Your task to perform on an android device: Go to Android settings Image 0: 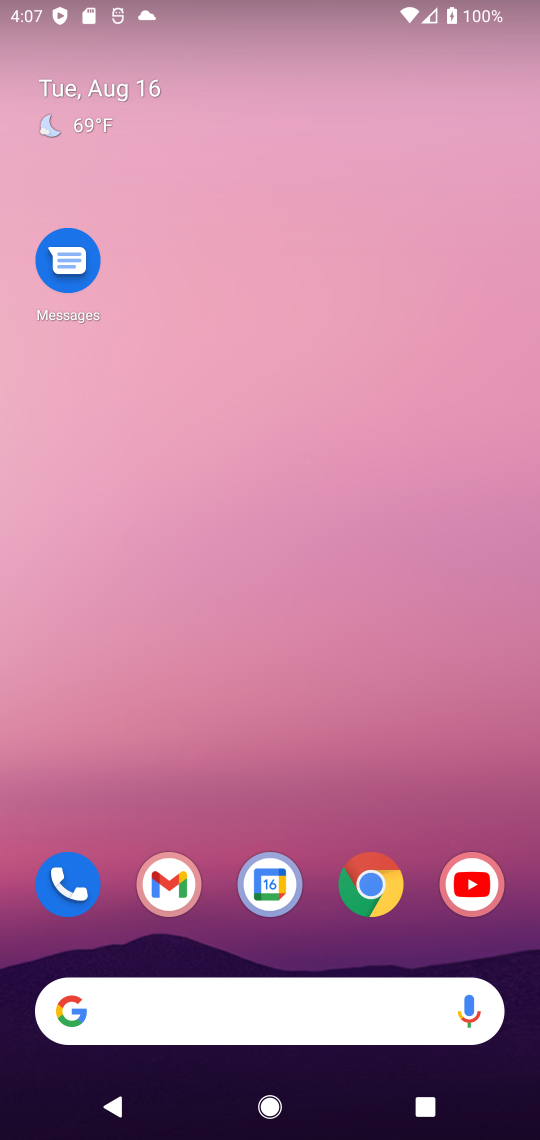
Step 0: drag from (54, 952) to (263, 194)
Your task to perform on an android device: Go to Android settings Image 1: 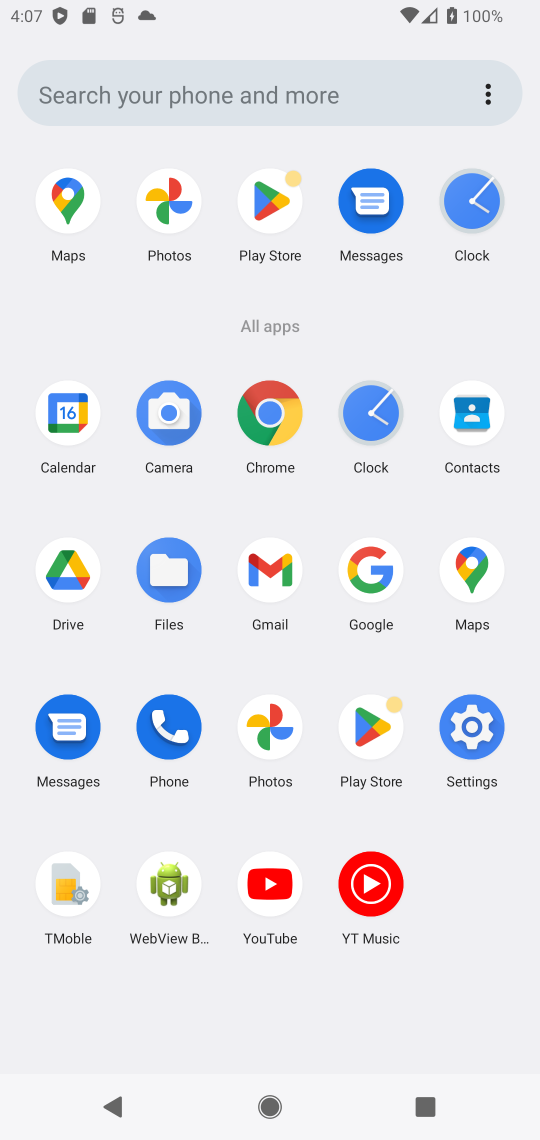
Step 1: click (467, 711)
Your task to perform on an android device: Go to Android settings Image 2: 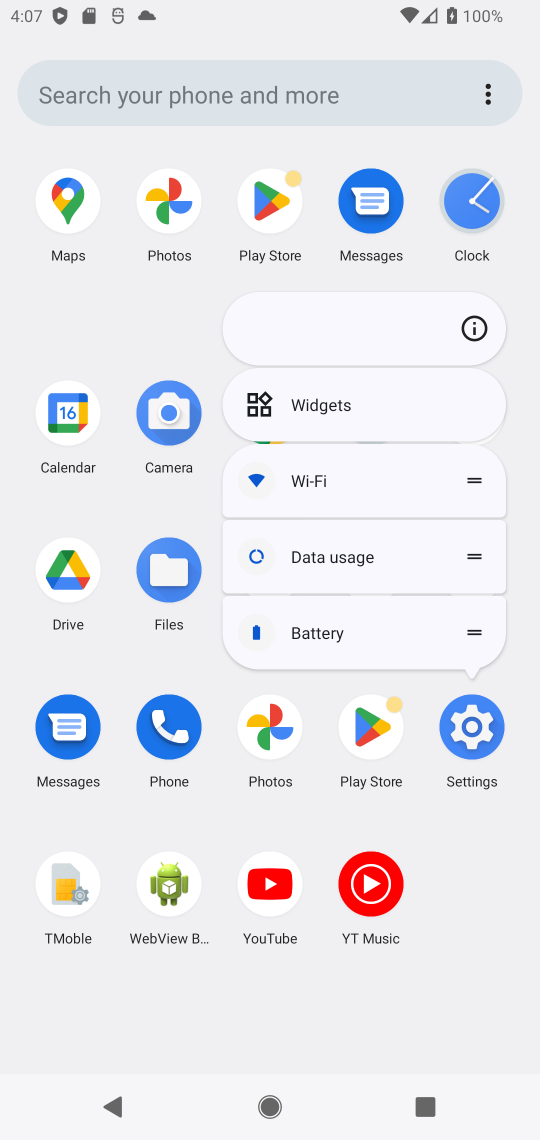
Step 2: click (454, 765)
Your task to perform on an android device: Go to Android settings Image 3: 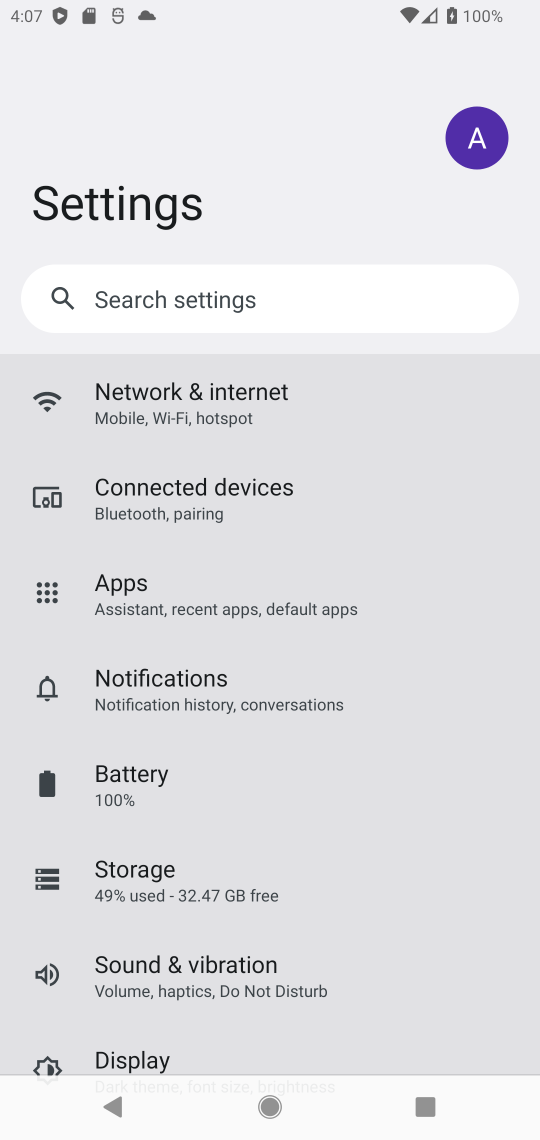
Step 3: drag from (416, 1040) to (420, 220)
Your task to perform on an android device: Go to Android settings Image 4: 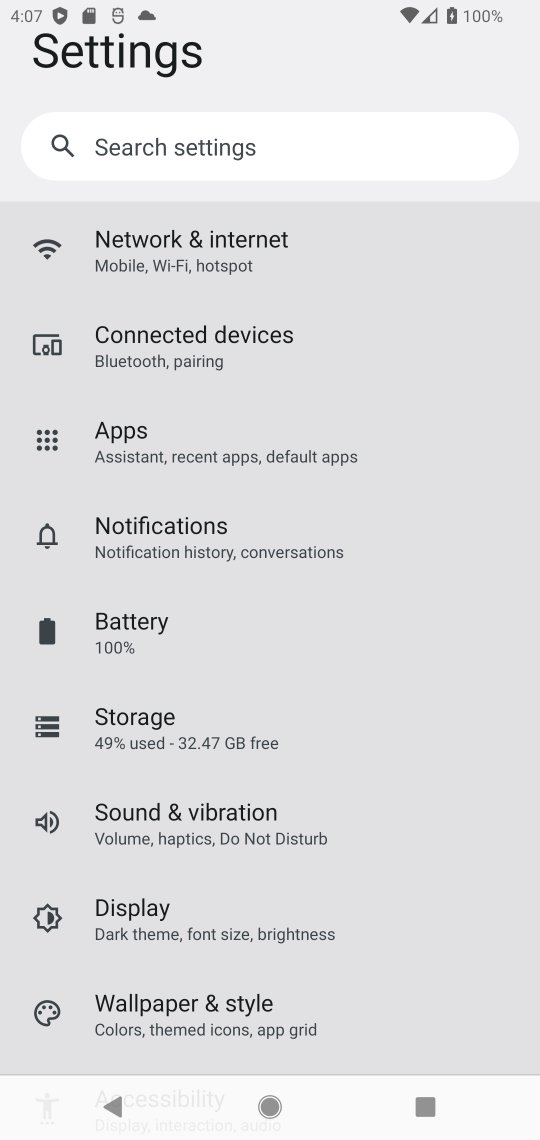
Step 4: drag from (385, 1017) to (337, 379)
Your task to perform on an android device: Go to Android settings Image 5: 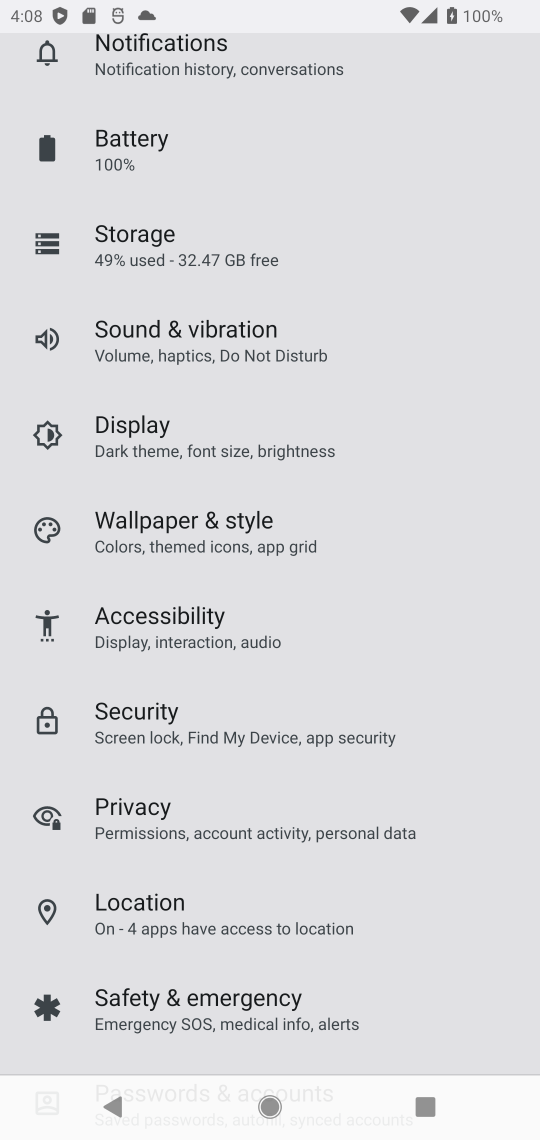
Step 5: drag from (414, 955) to (420, 288)
Your task to perform on an android device: Go to Android settings Image 6: 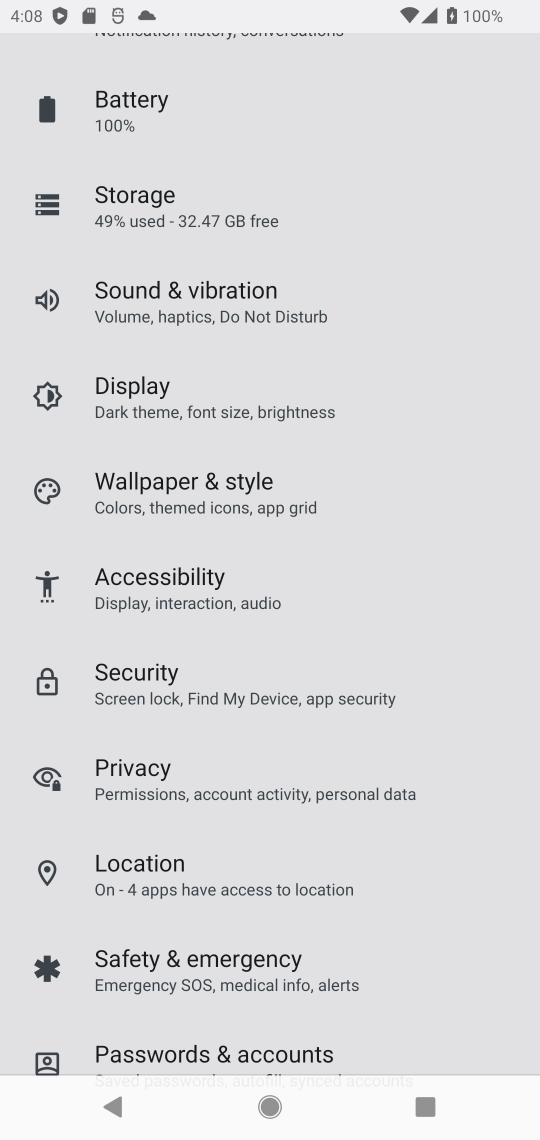
Step 6: drag from (419, 558) to (423, 133)
Your task to perform on an android device: Go to Android settings Image 7: 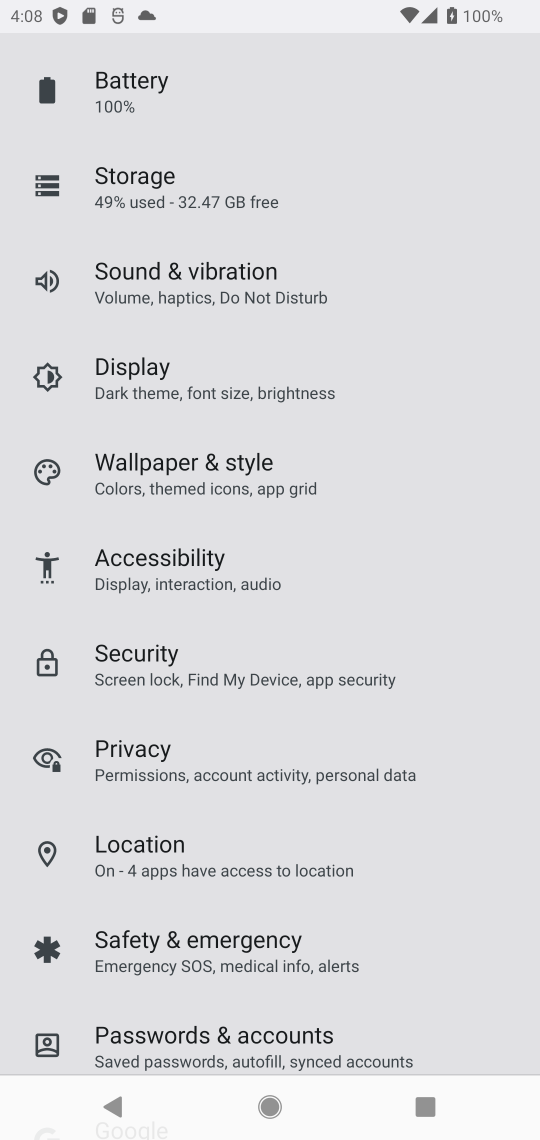
Step 7: drag from (462, 1008) to (458, 161)
Your task to perform on an android device: Go to Android settings Image 8: 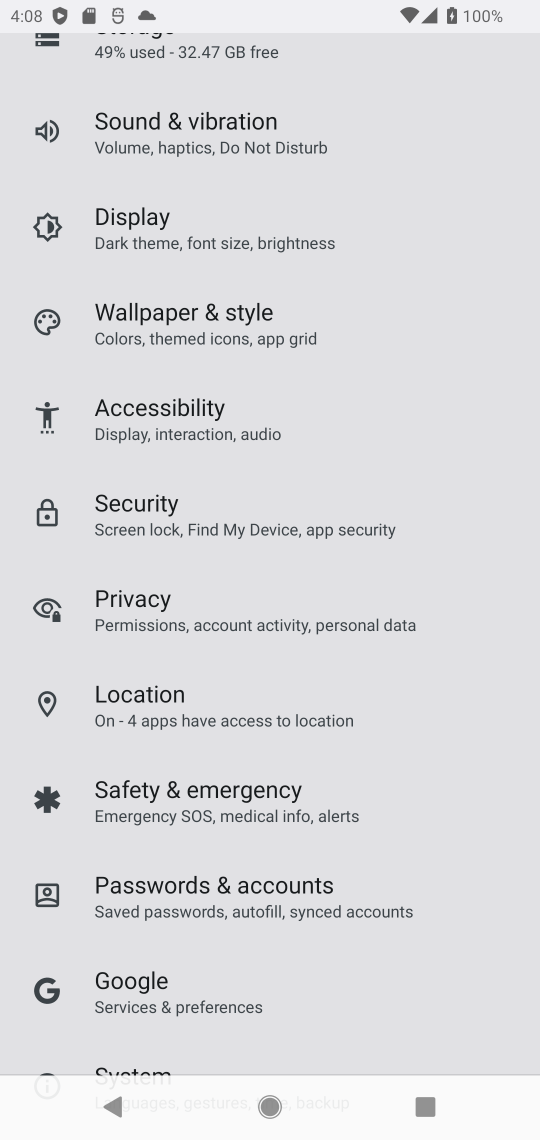
Step 8: drag from (342, 1030) to (382, 173)
Your task to perform on an android device: Go to Android settings Image 9: 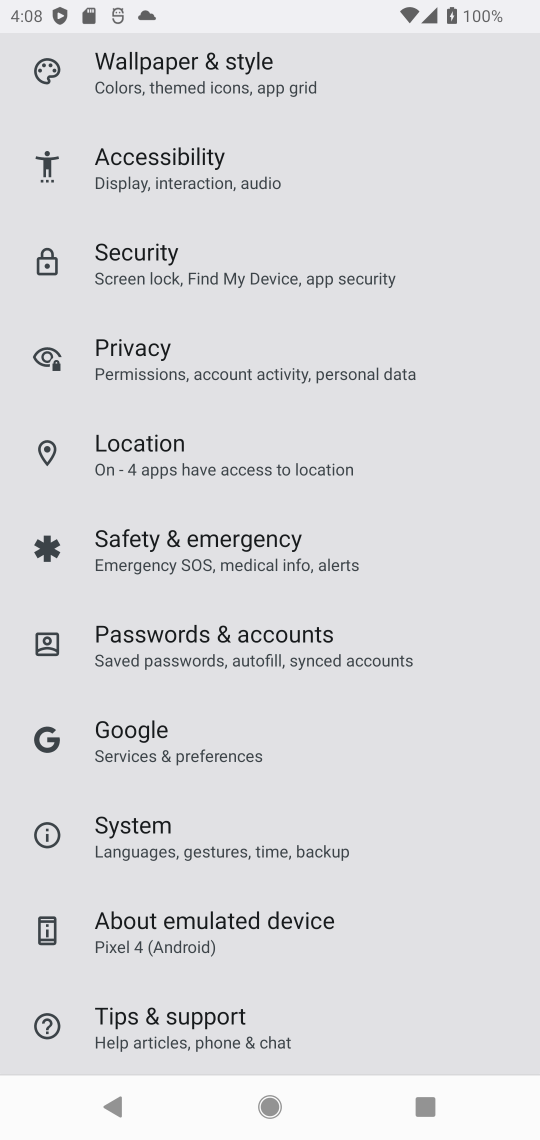
Step 9: drag from (347, 945) to (394, 456)
Your task to perform on an android device: Go to Android settings Image 10: 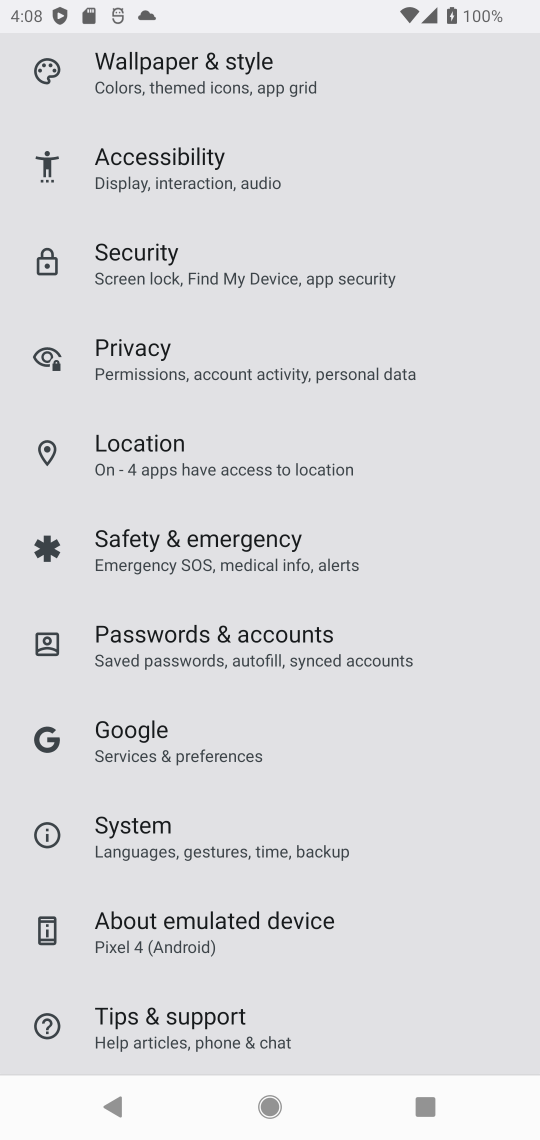
Step 10: click (265, 930)
Your task to perform on an android device: Go to Android settings Image 11: 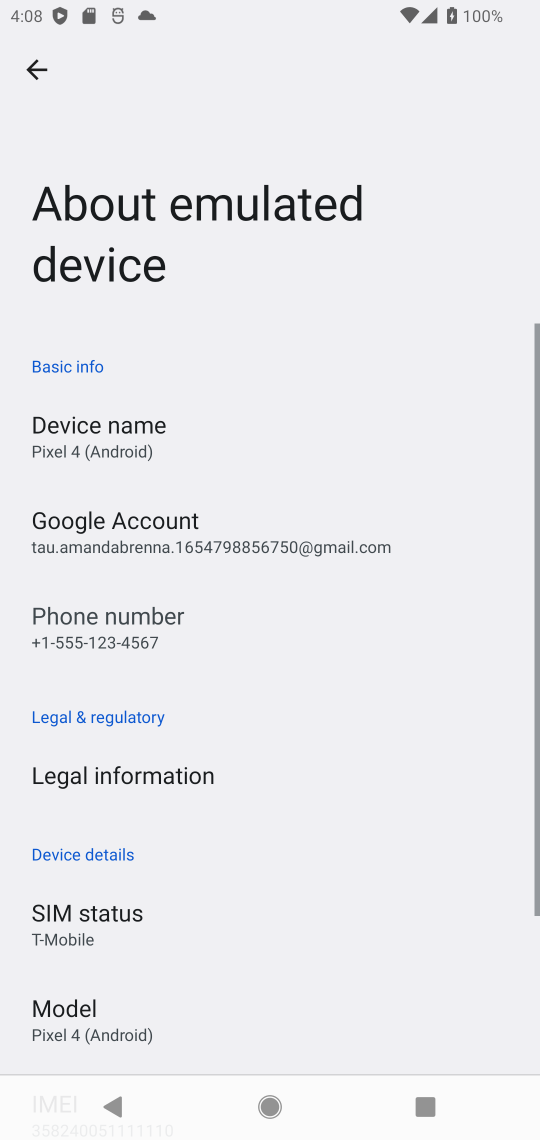
Step 11: drag from (344, 651) to (365, 329)
Your task to perform on an android device: Go to Android settings Image 12: 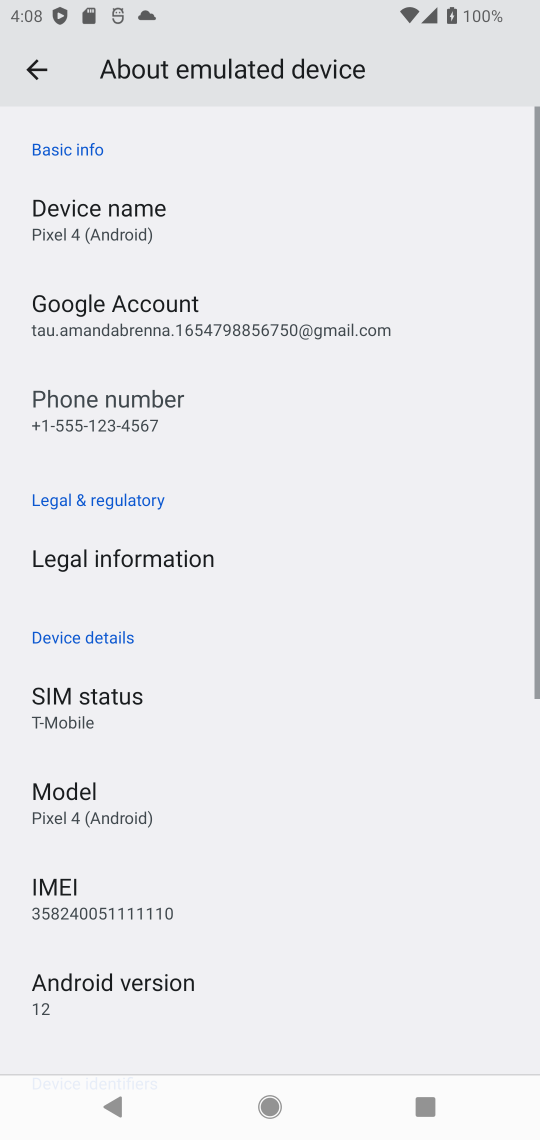
Step 12: click (176, 984)
Your task to perform on an android device: Go to Android settings Image 13: 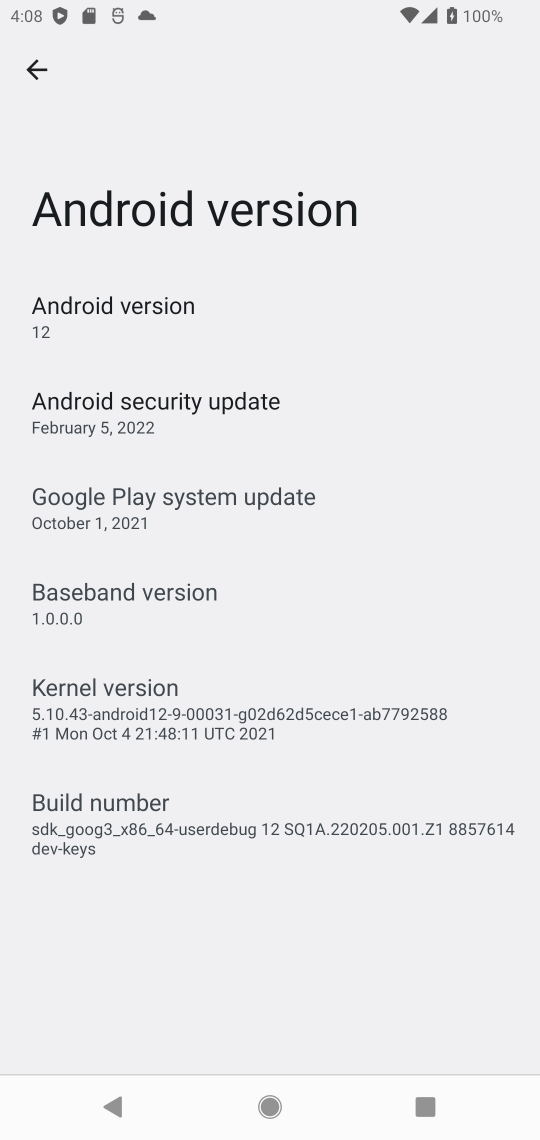
Step 13: task complete